Your task to perform on an android device: Open notification settings Image 0: 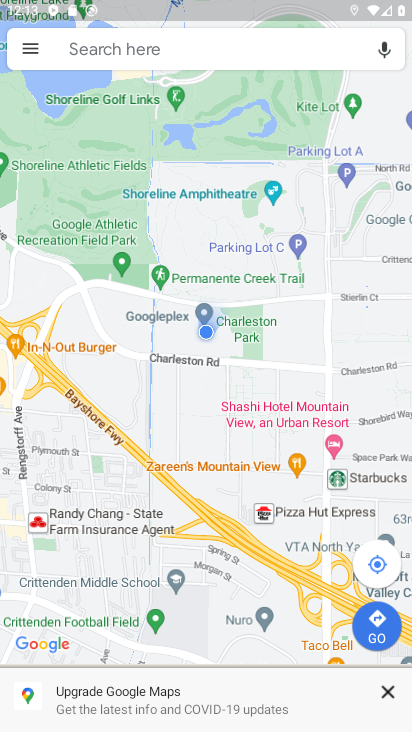
Step 0: press home button
Your task to perform on an android device: Open notification settings Image 1: 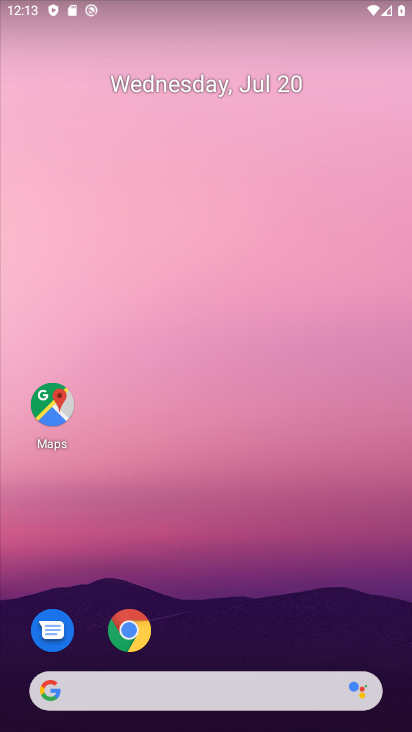
Step 1: drag from (234, 609) to (202, 34)
Your task to perform on an android device: Open notification settings Image 2: 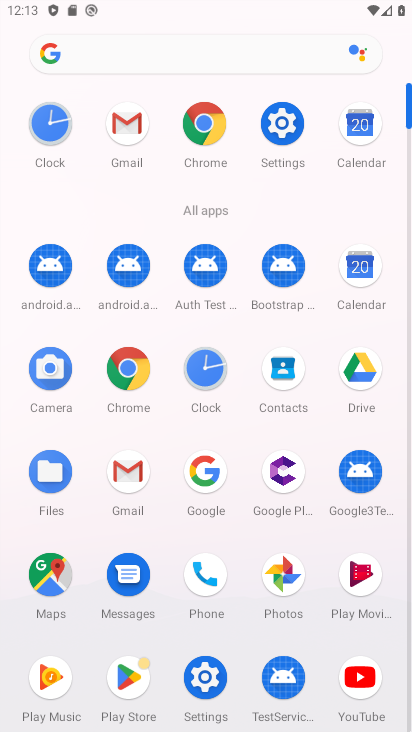
Step 2: click (281, 129)
Your task to perform on an android device: Open notification settings Image 3: 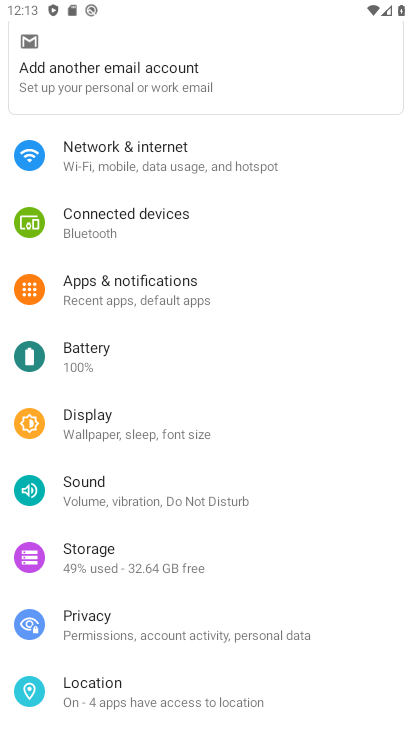
Step 3: click (139, 278)
Your task to perform on an android device: Open notification settings Image 4: 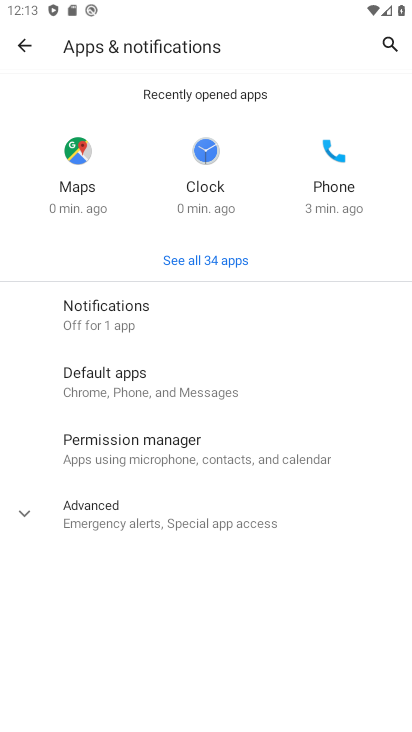
Step 4: task complete